Your task to perform on an android device: toggle pop-ups in chrome Image 0: 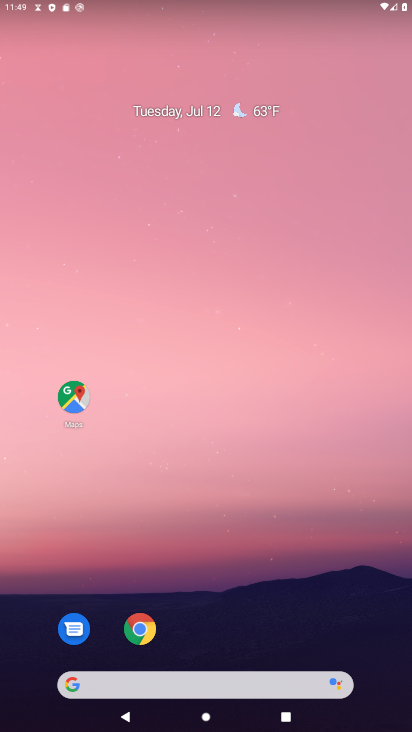
Step 0: drag from (320, 633) to (289, 58)
Your task to perform on an android device: toggle pop-ups in chrome Image 1: 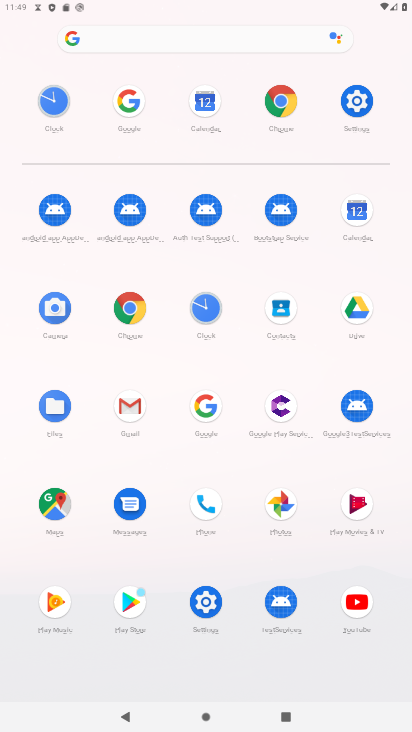
Step 1: click (269, 107)
Your task to perform on an android device: toggle pop-ups in chrome Image 2: 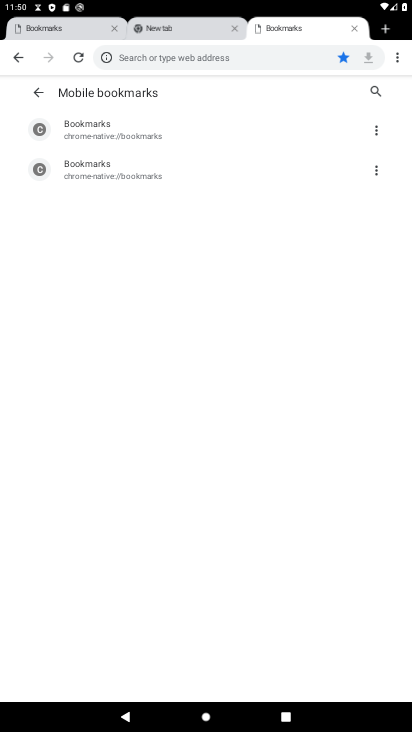
Step 2: drag from (399, 58) to (272, 265)
Your task to perform on an android device: toggle pop-ups in chrome Image 3: 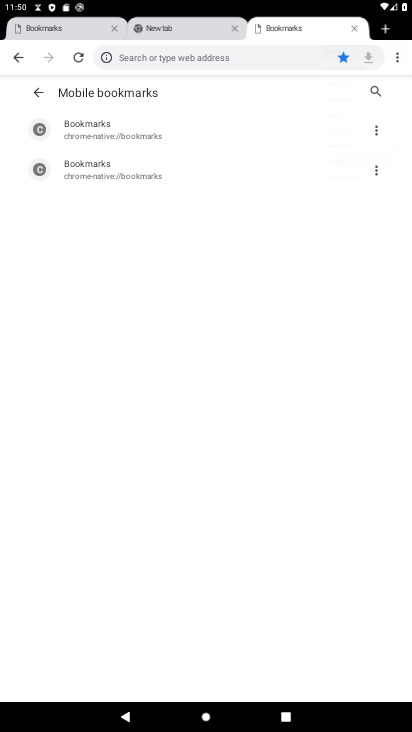
Step 3: click (270, 259)
Your task to perform on an android device: toggle pop-ups in chrome Image 4: 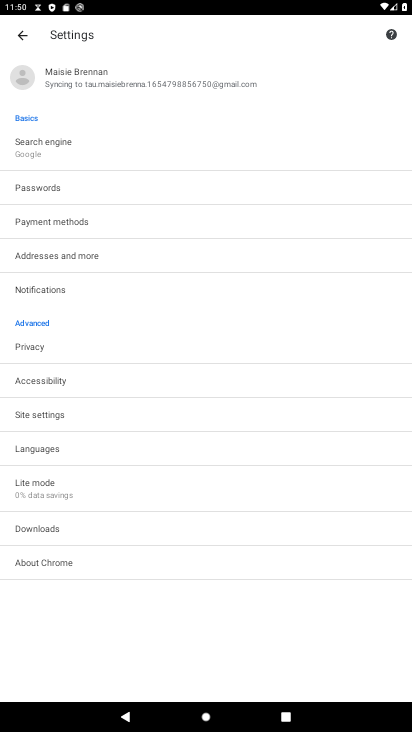
Step 4: click (50, 411)
Your task to perform on an android device: toggle pop-ups in chrome Image 5: 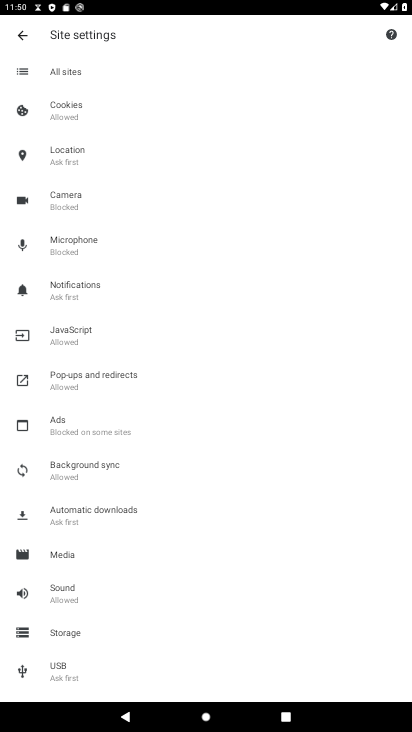
Step 5: click (68, 382)
Your task to perform on an android device: toggle pop-ups in chrome Image 6: 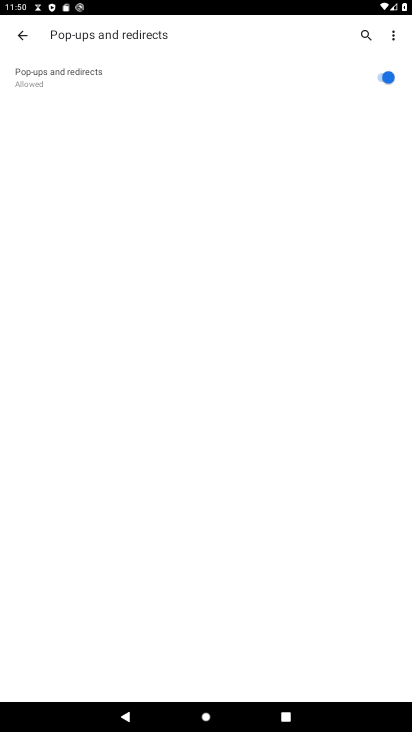
Step 6: click (383, 83)
Your task to perform on an android device: toggle pop-ups in chrome Image 7: 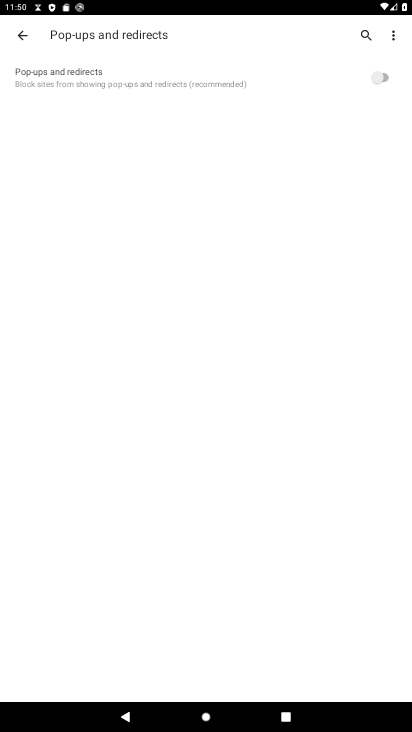
Step 7: task complete